Your task to perform on an android device: See recent photos Image 0: 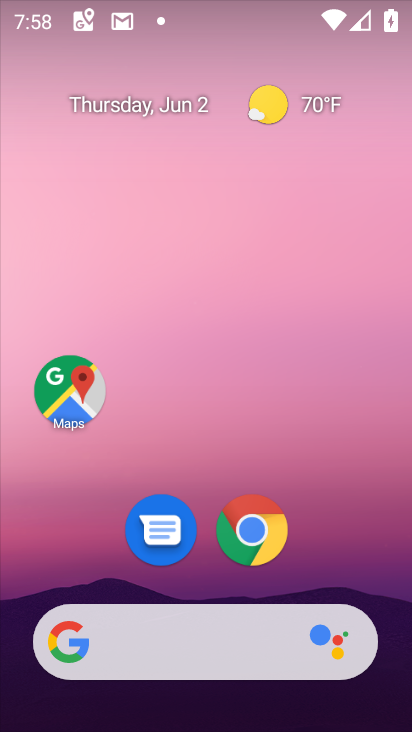
Step 0: drag from (180, 614) to (232, 260)
Your task to perform on an android device: See recent photos Image 1: 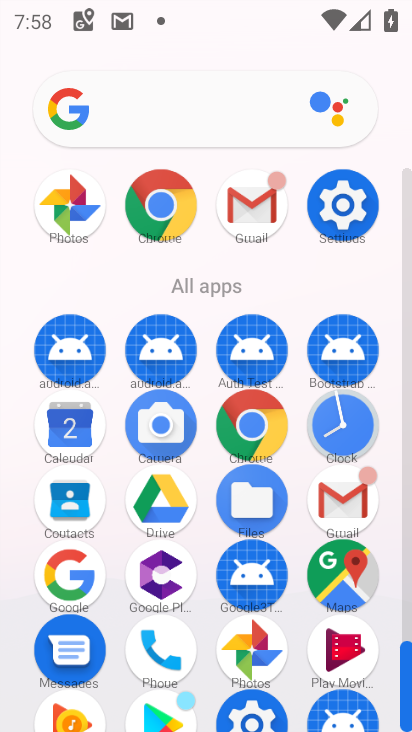
Step 1: click (246, 655)
Your task to perform on an android device: See recent photos Image 2: 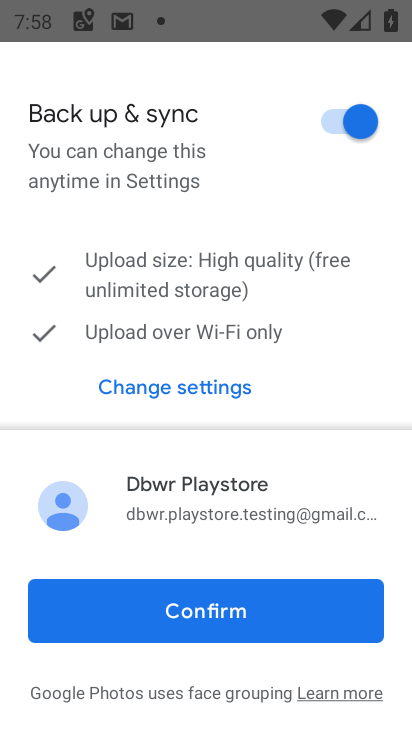
Step 2: click (187, 619)
Your task to perform on an android device: See recent photos Image 3: 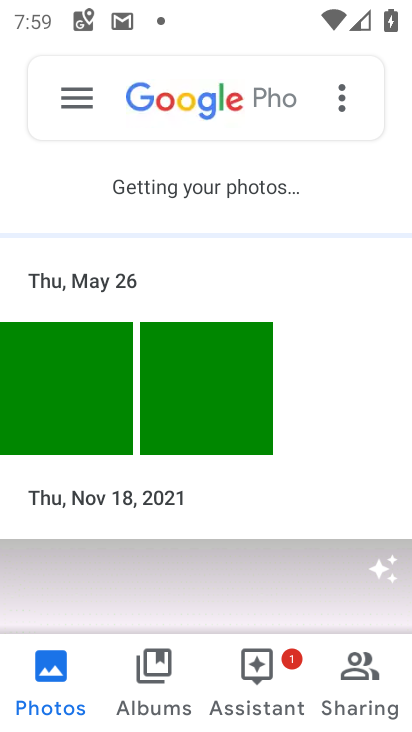
Step 3: click (74, 416)
Your task to perform on an android device: See recent photos Image 4: 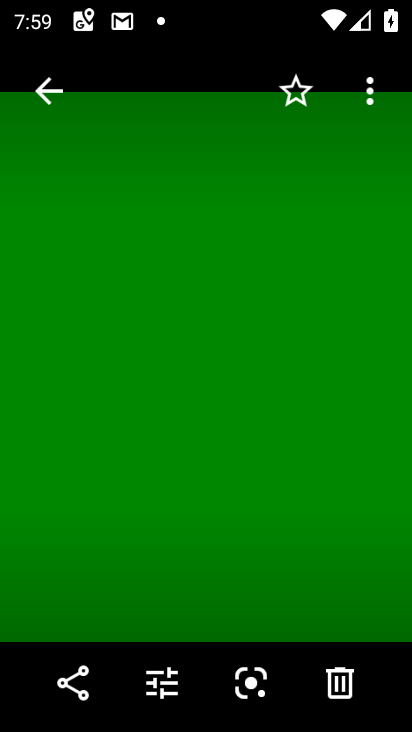
Step 4: task complete